Your task to perform on an android device: Open Chrome and go to settings Image 0: 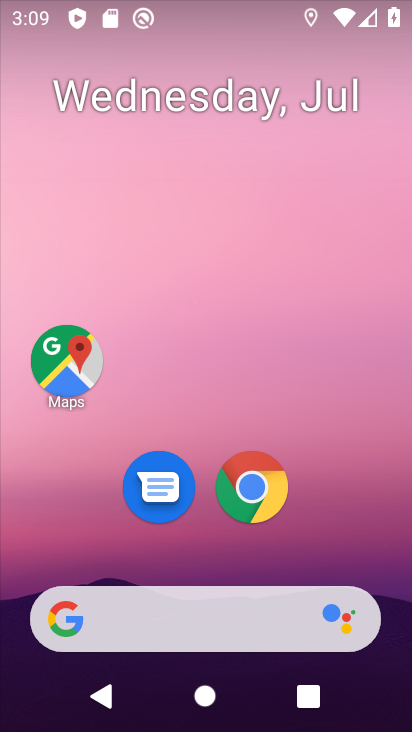
Step 0: click (260, 492)
Your task to perform on an android device: Open Chrome and go to settings Image 1: 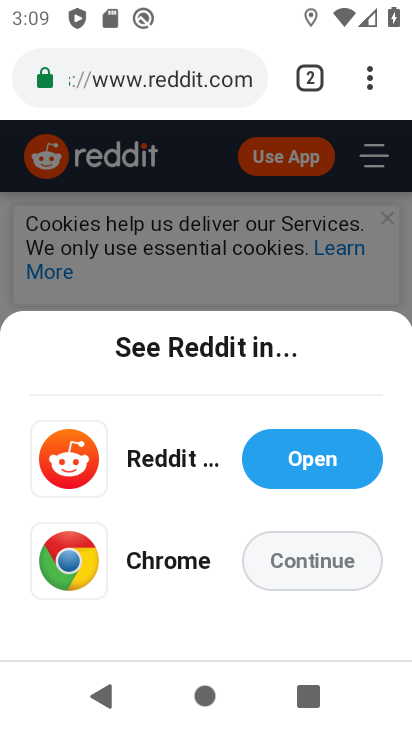
Step 1: task complete